Your task to perform on an android device: Open settings on Google Maps Image 0: 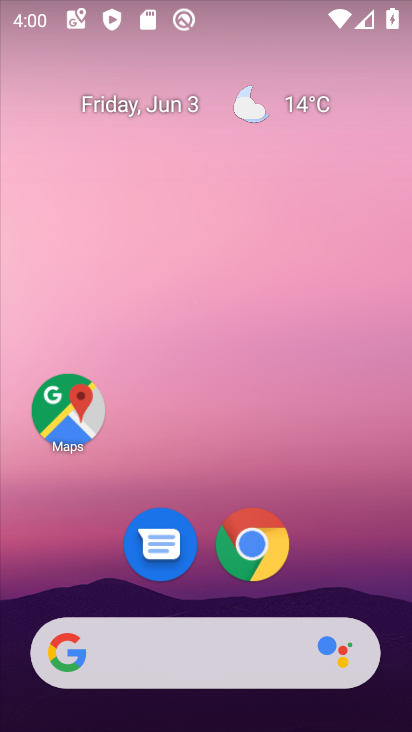
Step 0: click (67, 411)
Your task to perform on an android device: Open settings on Google Maps Image 1: 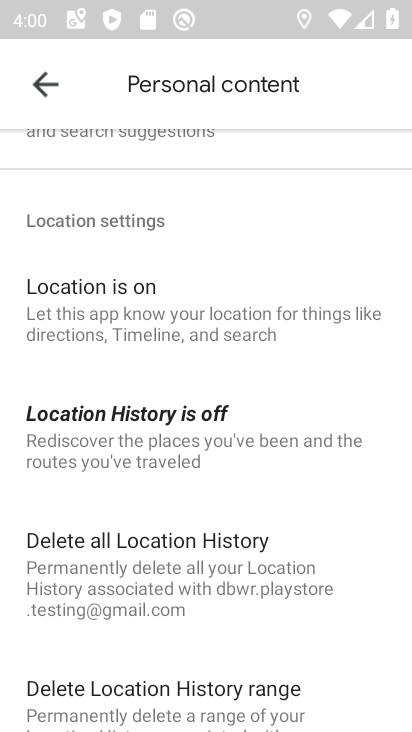
Step 1: press back button
Your task to perform on an android device: Open settings on Google Maps Image 2: 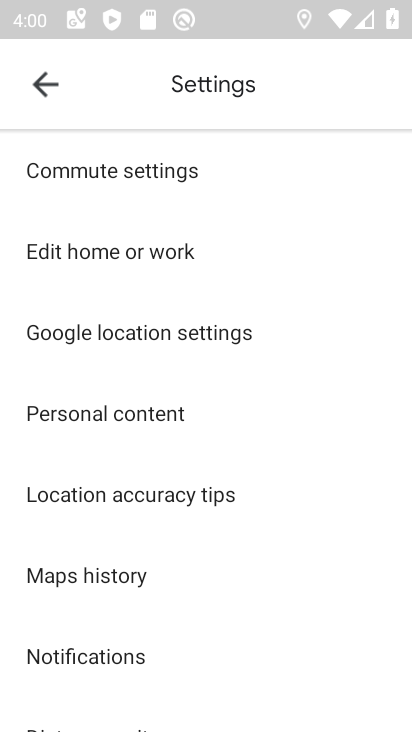
Step 2: drag from (289, 521) to (301, 216)
Your task to perform on an android device: Open settings on Google Maps Image 3: 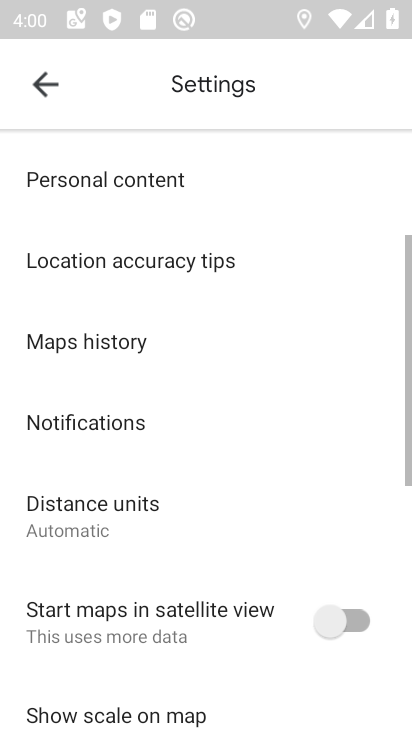
Step 3: click (301, 216)
Your task to perform on an android device: Open settings on Google Maps Image 4: 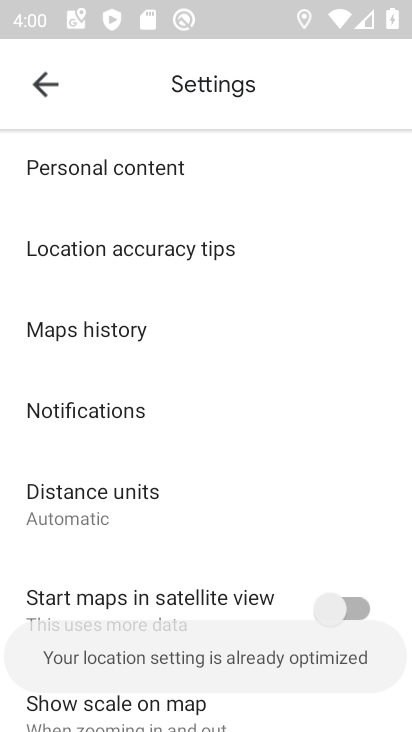
Step 4: task complete